Your task to perform on an android device: see sites visited before in the chrome app Image 0: 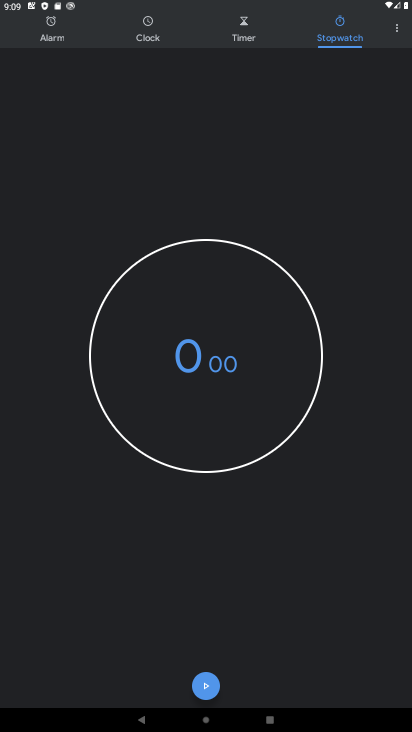
Step 0: press home button
Your task to perform on an android device: see sites visited before in the chrome app Image 1: 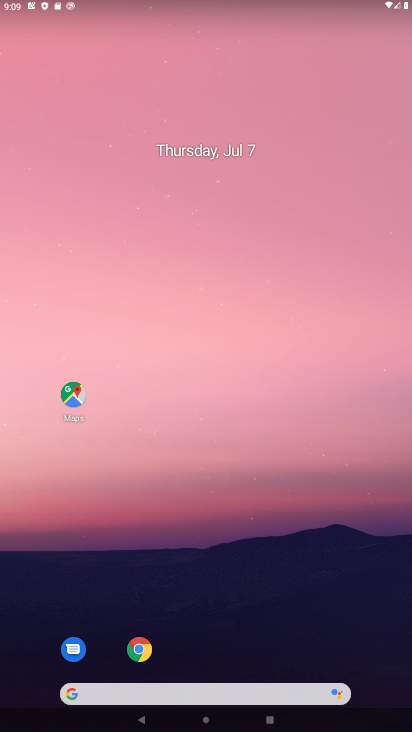
Step 1: click (133, 648)
Your task to perform on an android device: see sites visited before in the chrome app Image 2: 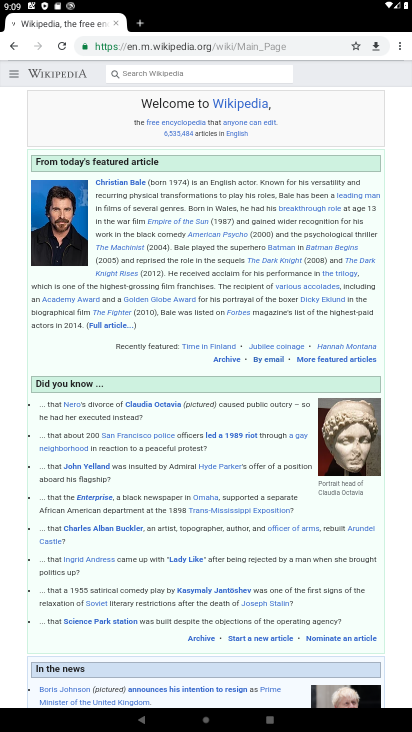
Step 2: click (399, 44)
Your task to perform on an android device: see sites visited before in the chrome app Image 3: 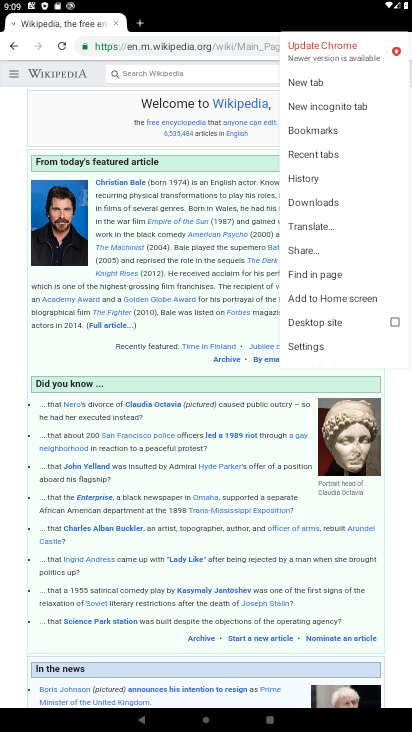
Step 3: click (305, 178)
Your task to perform on an android device: see sites visited before in the chrome app Image 4: 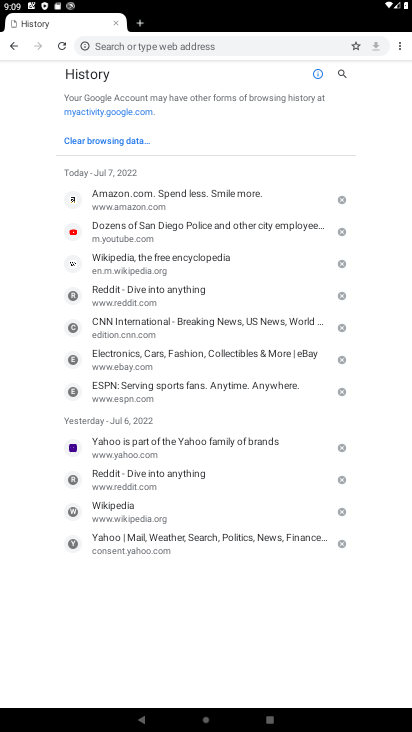
Step 4: task complete